Your task to perform on an android device: Play the last video I watched on Youtube Image 0: 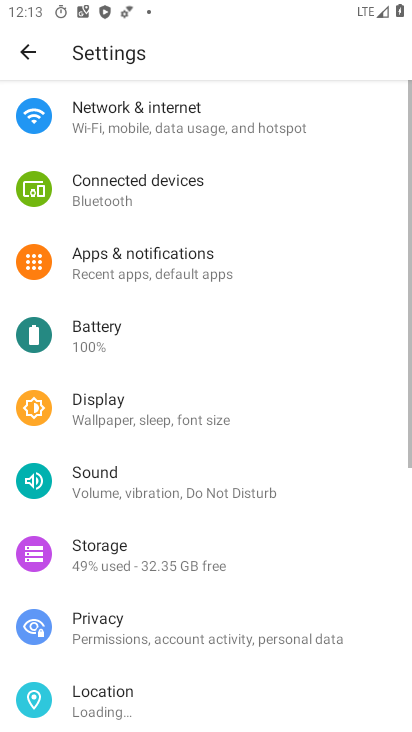
Step 0: press home button
Your task to perform on an android device: Play the last video I watched on Youtube Image 1: 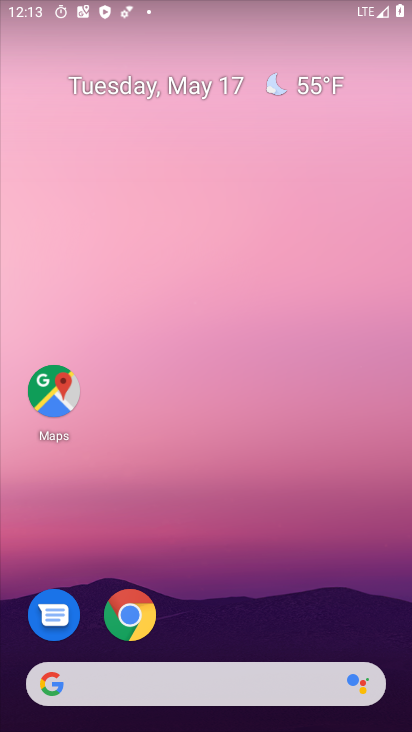
Step 1: drag from (333, 577) to (348, 36)
Your task to perform on an android device: Play the last video I watched on Youtube Image 2: 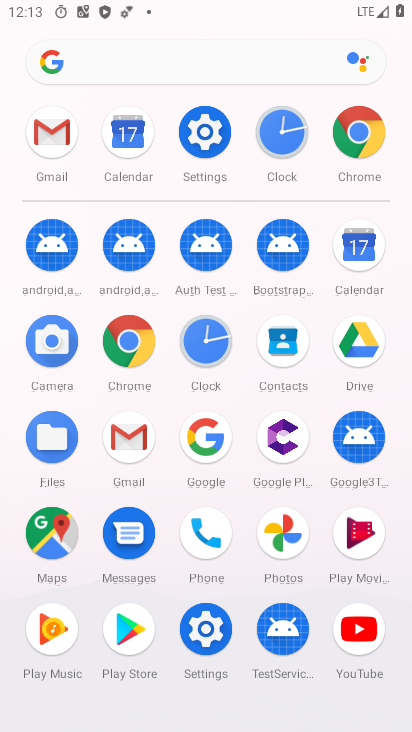
Step 2: click (348, 652)
Your task to perform on an android device: Play the last video I watched on Youtube Image 3: 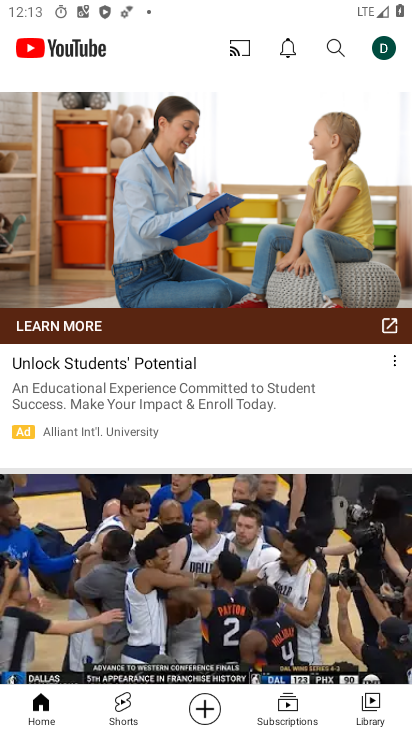
Step 3: click (370, 701)
Your task to perform on an android device: Play the last video I watched on Youtube Image 4: 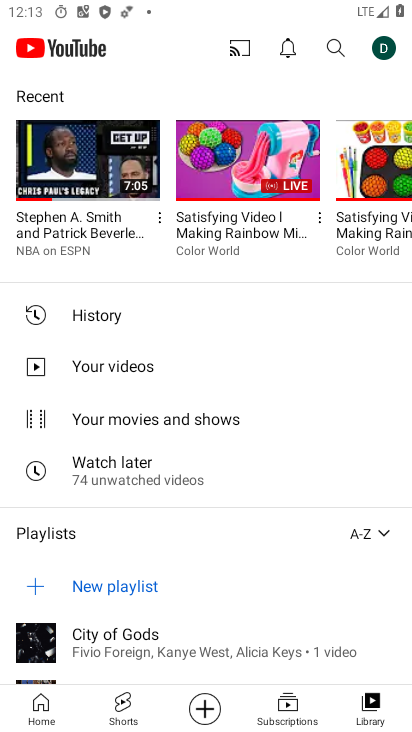
Step 4: click (138, 147)
Your task to perform on an android device: Play the last video I watched on Youtube Image 5: 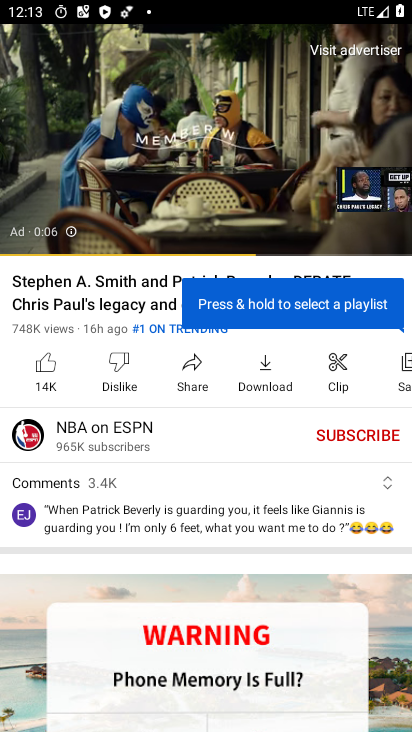
Step 5: task complete